Your task to perform on an android device: move a message to another label in the gmail app Image 0: 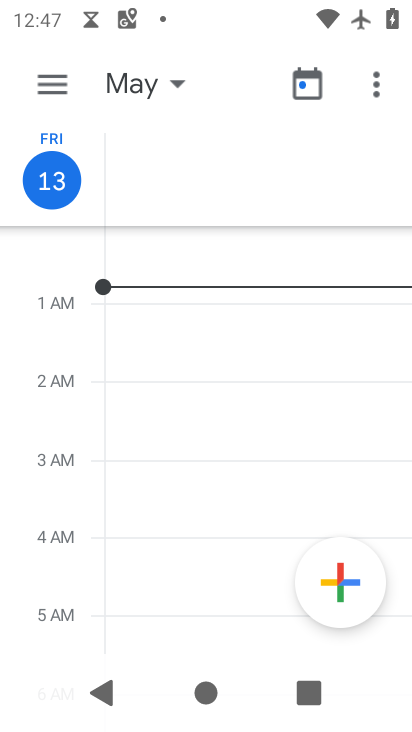
Step 0: press home button
Your task to perform on an android device: move a message to another label in the gmail app Image 1: 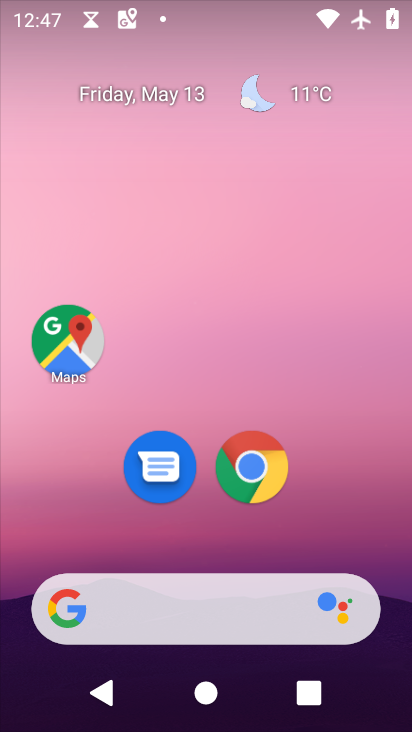
Step 1: drag from (284, 415) to (236, 63)
Your task to perform on an android device: move a message to another label in the gmail app Image 2: 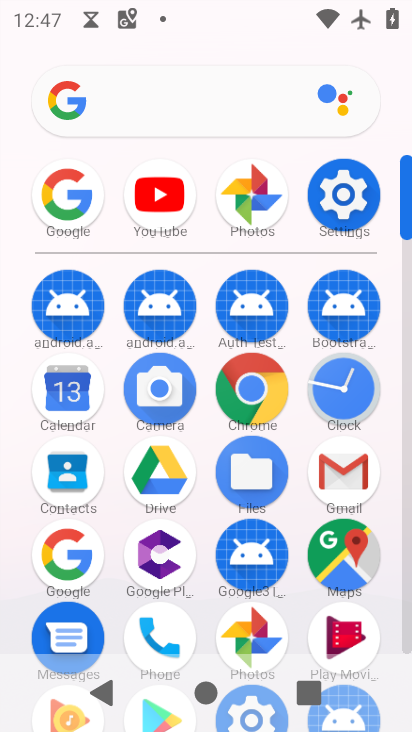
Step 2: click (347, 484)
Your task to perform on an android device: move a message to another label in the gmail app Image 3: 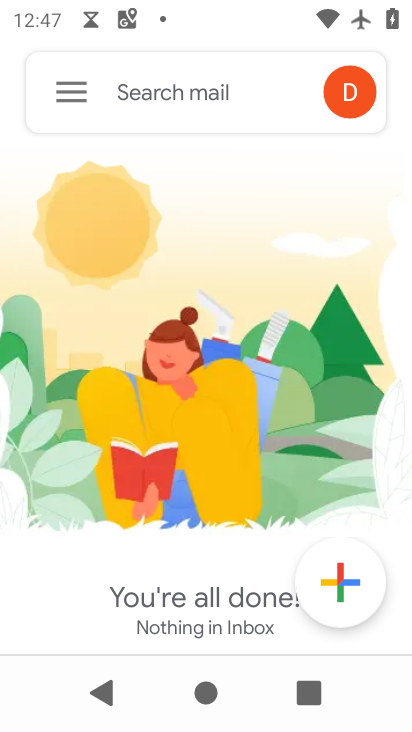
Step 3: click (71, 100)
Your task to perform on an android device: move a message to another label in the gmail app Image 4: 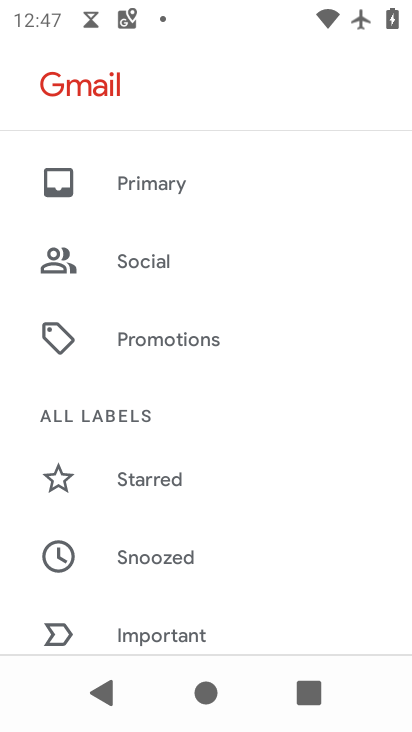
Step 4: drag from (231, 585) to (247, 141)
Your task to perform on an android device: move a message to another label in the gmail app Image 5: 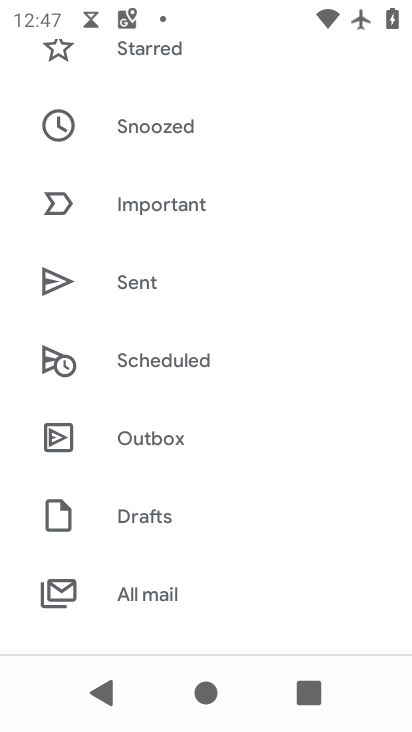
Step 5: click (152, 600)
Your task to perform on an android device: move a message to another label in the gmail app Image 6: 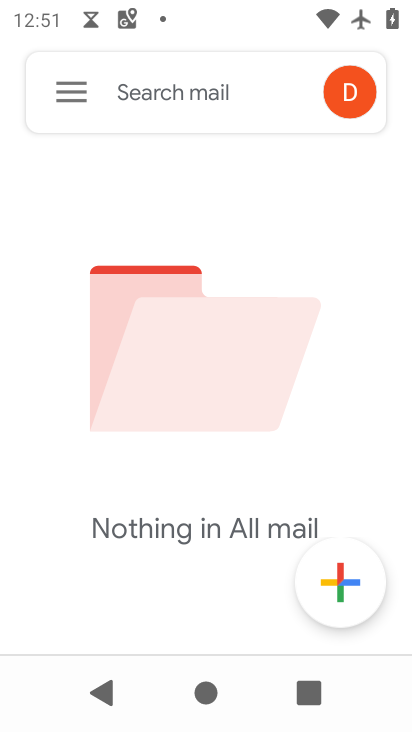
Step 6: task complete